Your task to perform on an android device: Open notification settings Image 0: 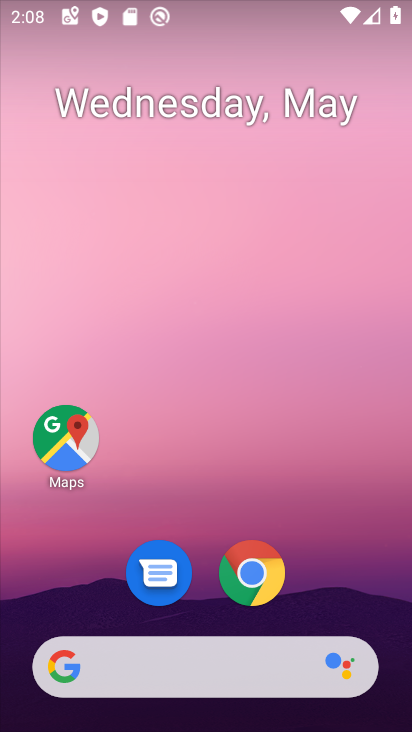
Step 0: drag from (341, 601) to (332, 76)
Your task to perform on an android device: Open notification settings Image 1: 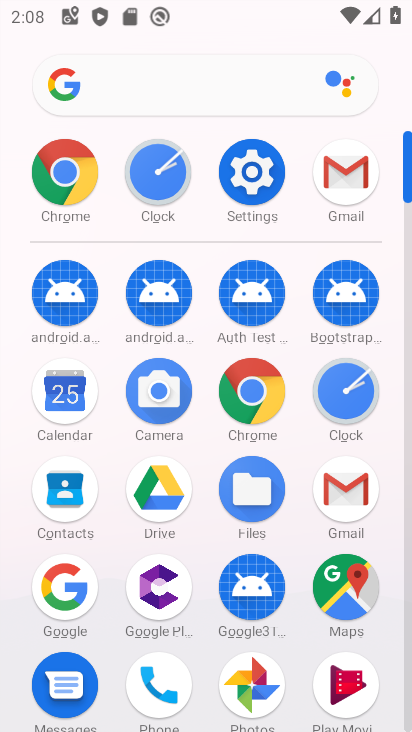
Step 1: click (264, 172)
Your task to perform on an android device: Open notification settings Image 2: 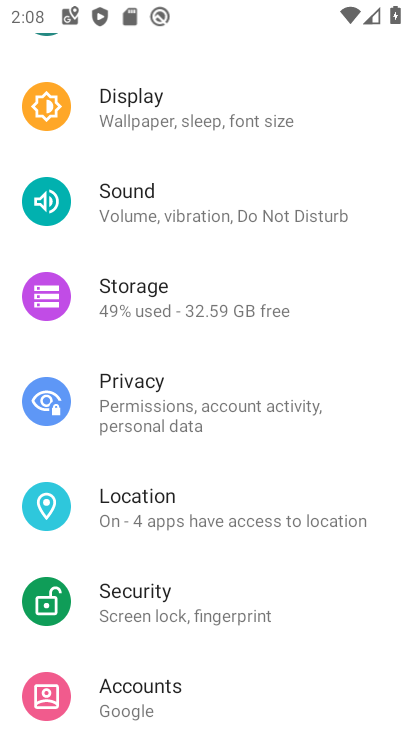
Step 2: drag from (257, 284) to (363, 702)
Your task to perform on an android device: Open notification settings Image 3: 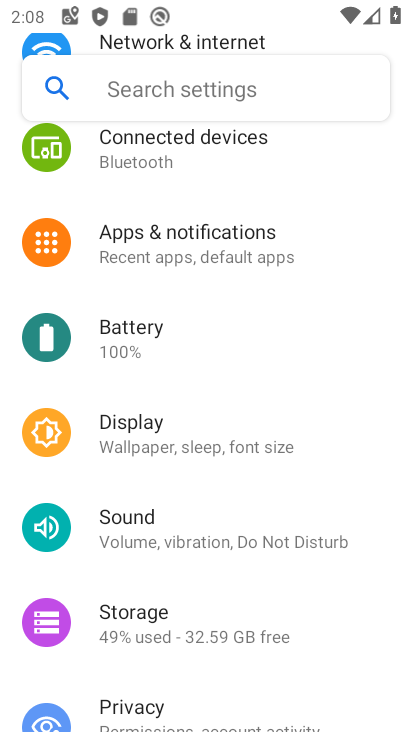
Step 3: click (226, 250)
Your task to perform on an android device: Open notification settings Image 4: 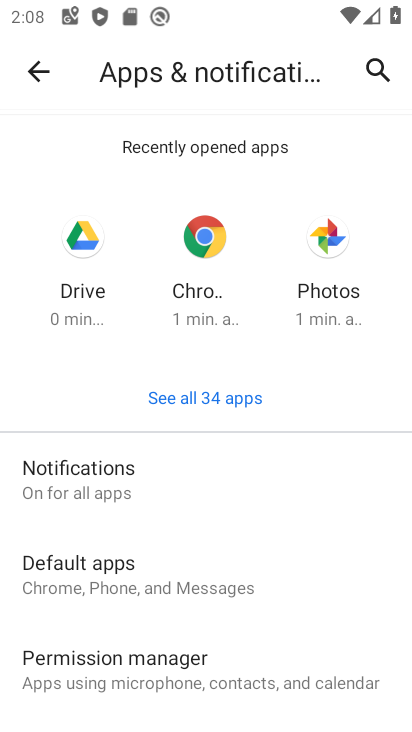
Step 4: click (203, 489)
Your task to perform on an android device: Open notification settings Image 5: 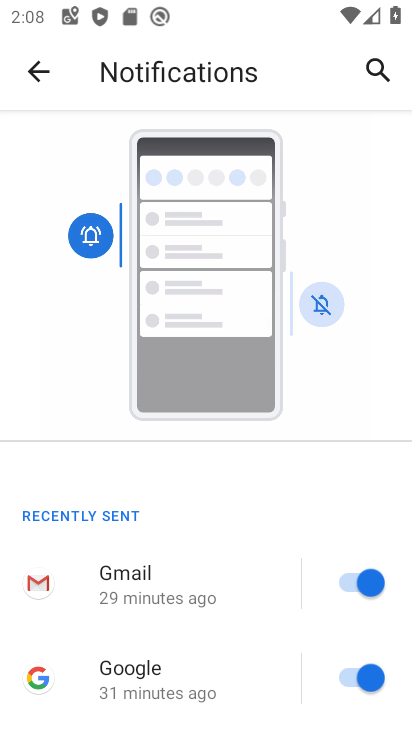
Step 5: task complete